Your task to perform on an android device: Open privacy settings Image 0: 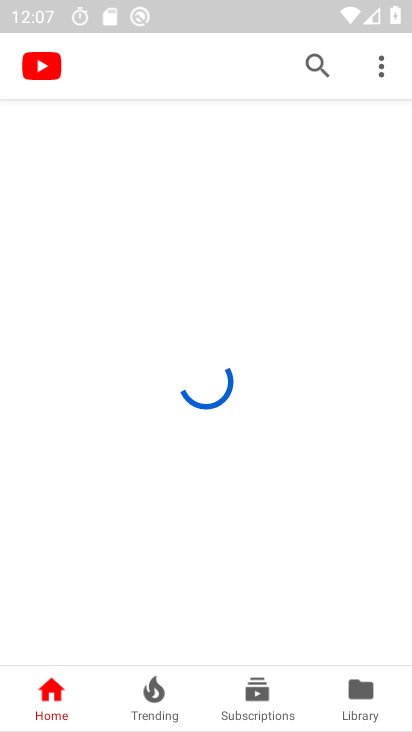
Step 0: press home button
Your task to perform on an android device: Open privacy settings Image 1: 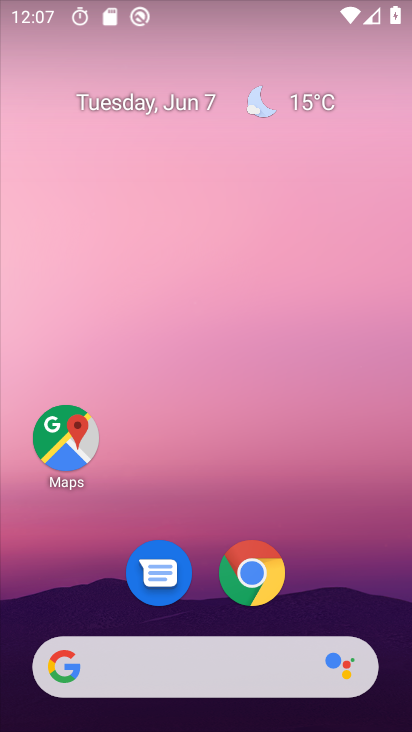
Step 1: drag from (191, 619) to (182, 242)
Your task to perform on an android device: Open privacy settings Image 2: 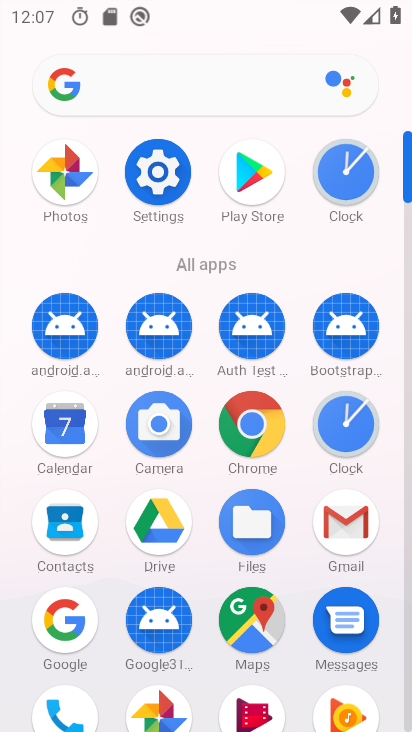
Step 2: click (162, 198)
Your task to perform on an android device: Open privacy settings Image 3: 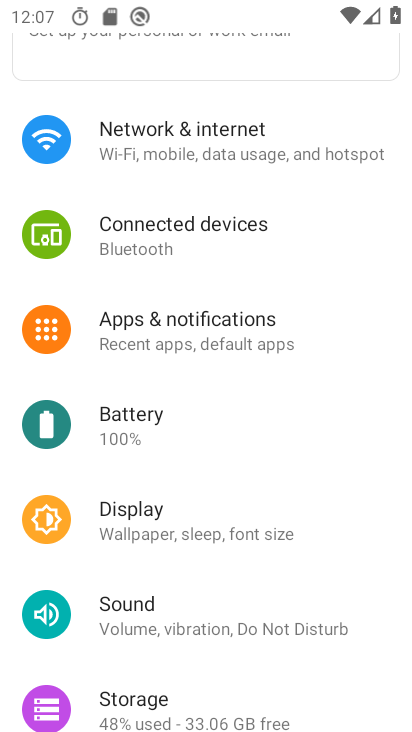
Step 3: drag from (222, 579) to (205, 298)
Your task to perform on an android device: Open privacy settings Image 4: 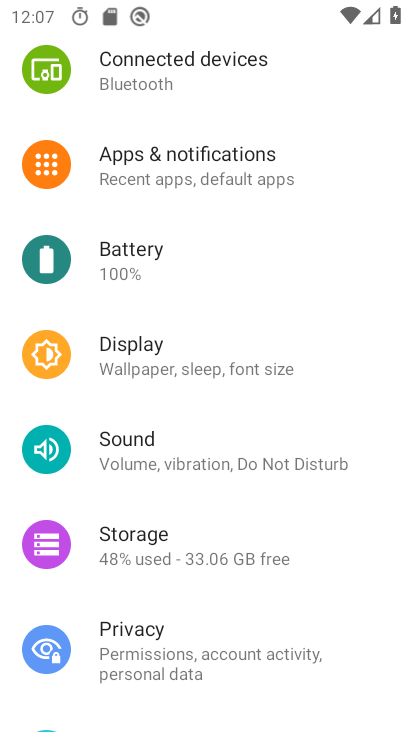
Step 4: click (159, 644)
Your task to perform on an android device: Open privacy settings Image 5: 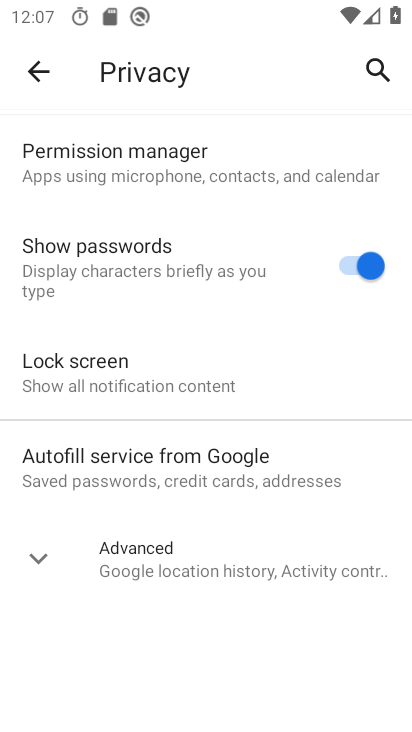
Step 5: task complete